Your task to perform on an android device: turn on airplane mode Image 0: 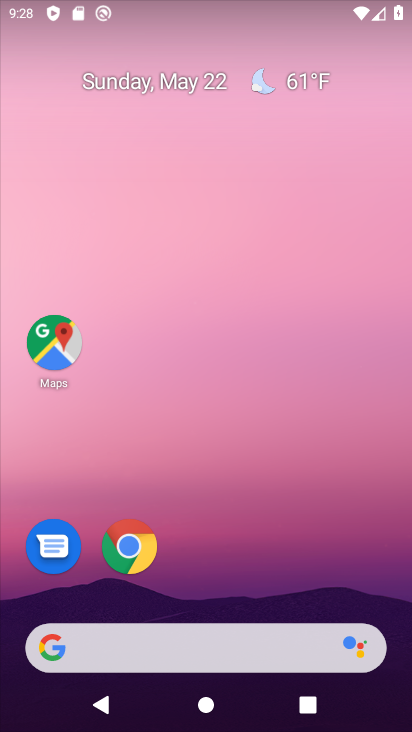
Step 0: drag from (237, 642) to (136, 75)
Your task to perform on an android device: turn on airplane mode Image 1: 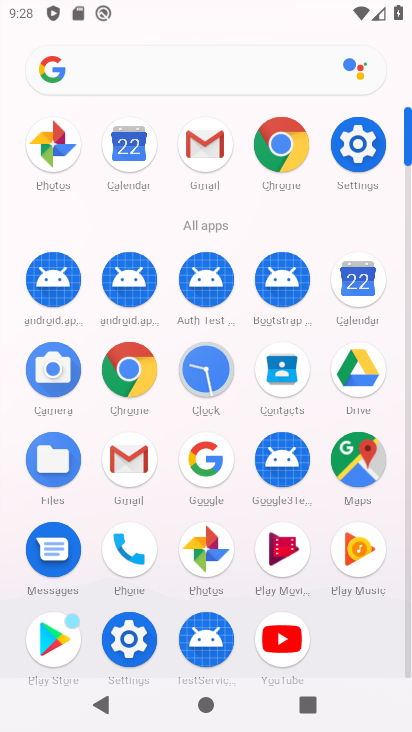
Step 1: click (355, 166)
Your task to perform on an android device: turn on airplane mode Image 2: 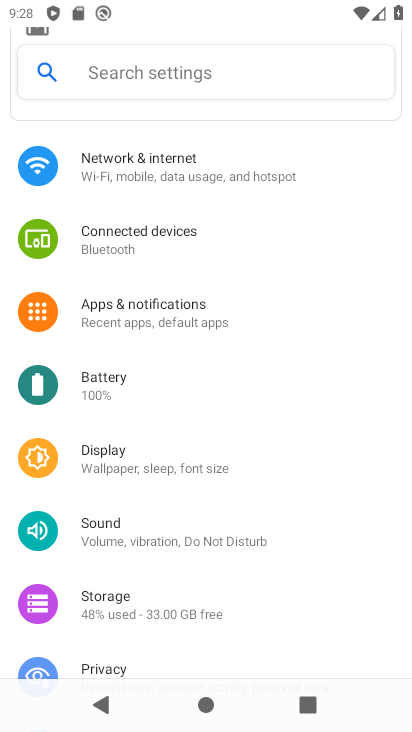
Step 2: drag from (196, 152) to (195, 692)
Your task to perform on an android device: turn on airplane mode Image 3: 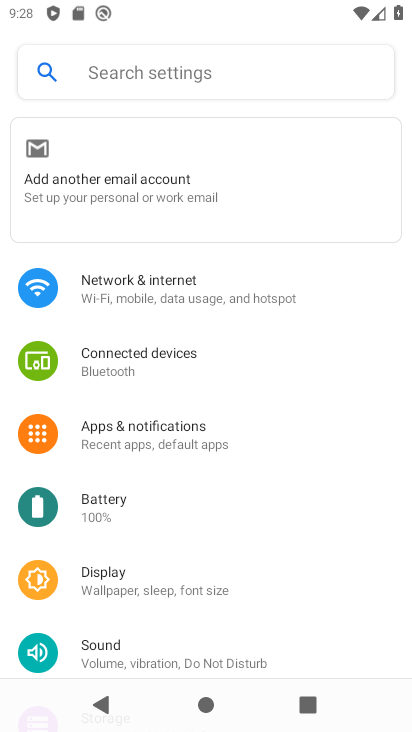
Step 3: click (144, 293)
Your task to perform on an android device: turn on airplane mode Image 4: 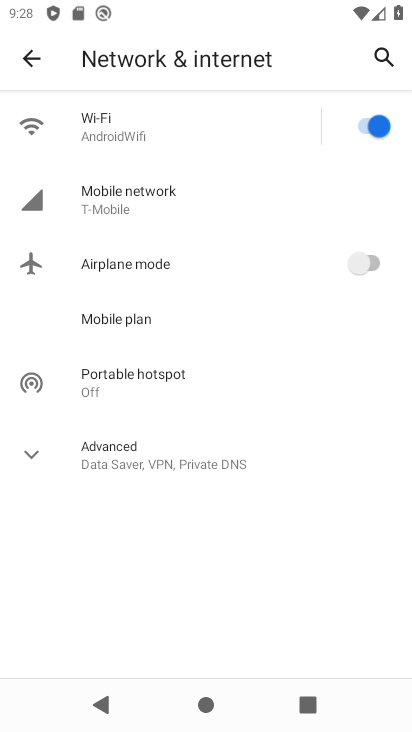
Step 4: click (383, 259)
Your task to perform on an android device: turn on airplane mode Image 5: 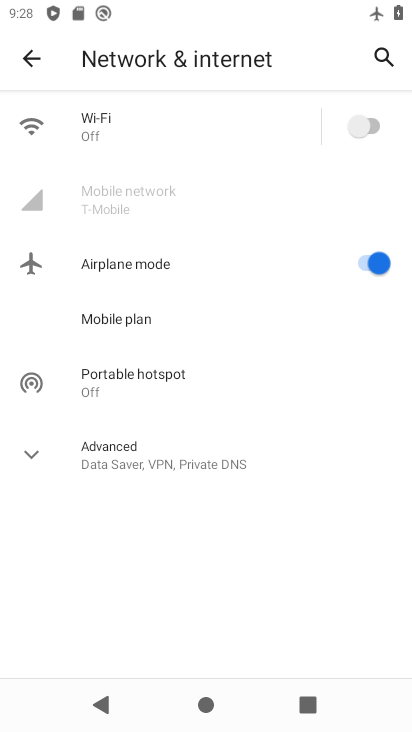
Step 5: task complete